Your task to perform on an android device: change the clock style Image 0: 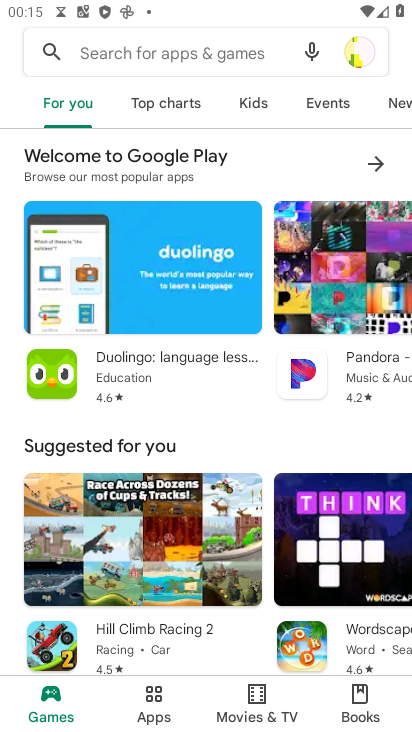
Step 0: press back button
Your task to perform on an android device: change the clock style Image 1: 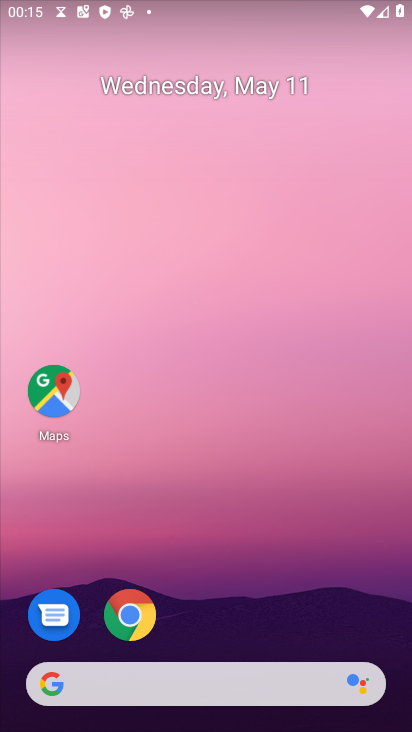
Step 1: drag from (255, 585) to (294, 25)
Your task to perform on an android device: change the clock style Image 2: 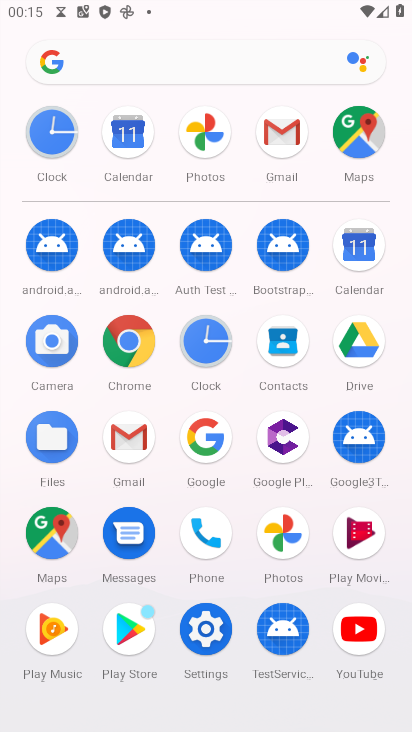
Step 2: click (204, 343)
Your task to perform on an android device: change the clock style Image 3: 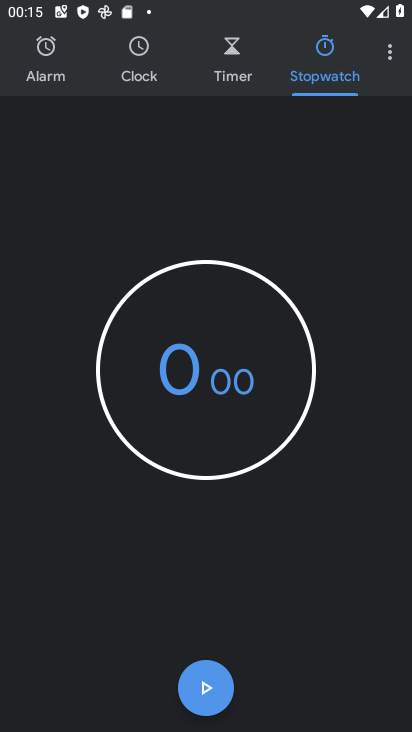
Step 3: click (392, 55)
Your task to perform on an android device: change the clock style Image 4: 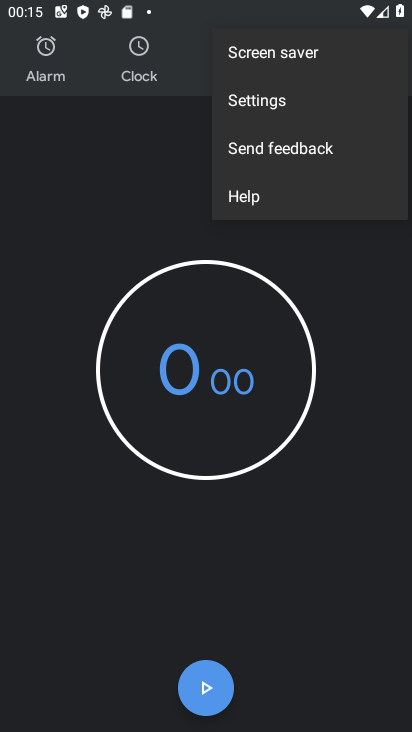
Step 4: click (266, 102)
Your task to perform on an android device: change the clock style Image 5: 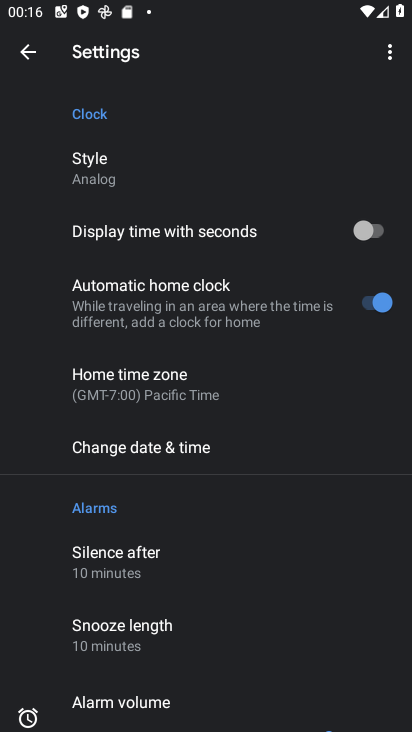
Step 5: click (115, 170)
Your task to perform on an android device: change the clock style Image 6: 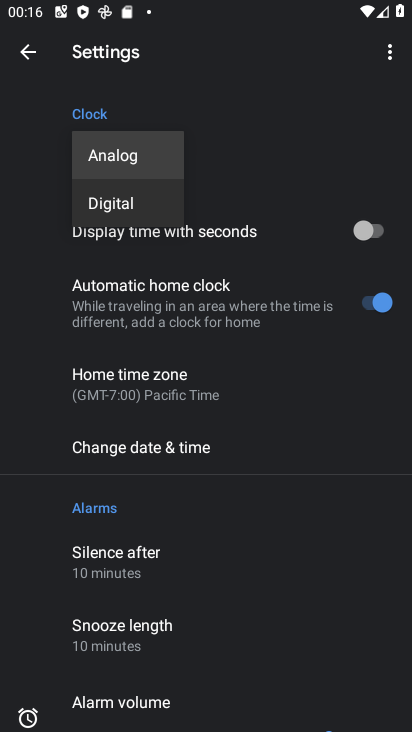
Step 6: click (128, 210)
Your task to perform on an android device: change the clock style Image 7: 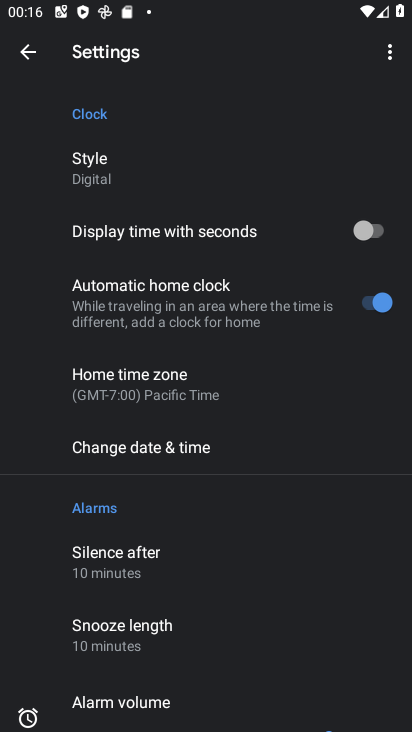
Step 7: task complete